Your task to perform on an android device: Go to settings Image 0: 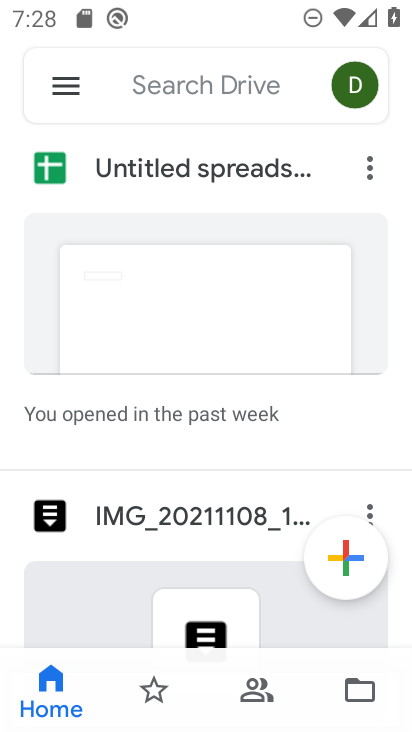
Step 0: press home button
Your task to perform on an android device: Go to settings Image 1: 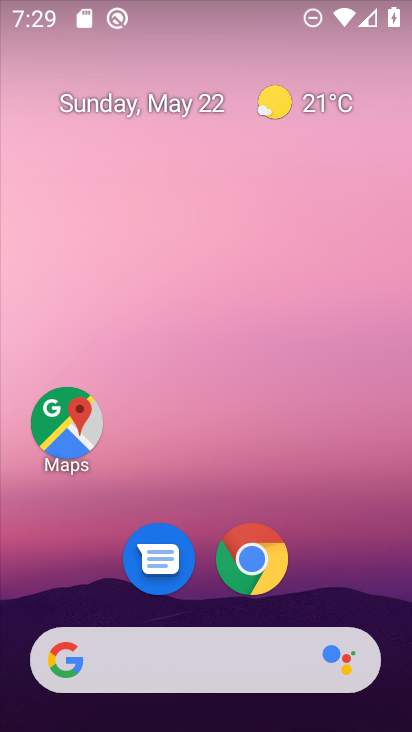
Step 1: drag from (291, 698) to (295, 276)
Your task to perform on an android device: Go to settings Image 2: 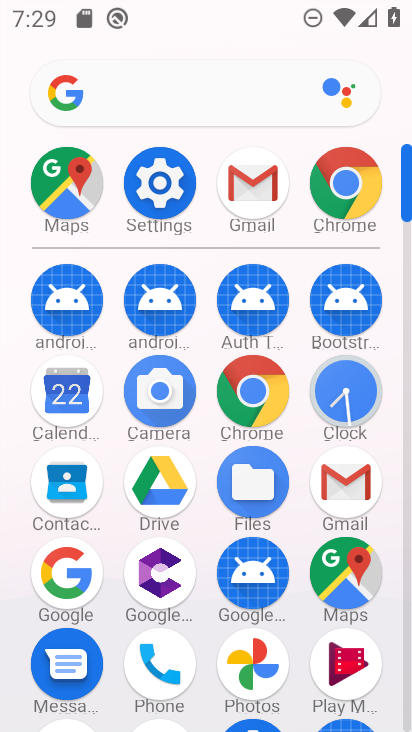
Step 2: click (180, 195)
Your task to perform on an android device: Go to settings Image 3: 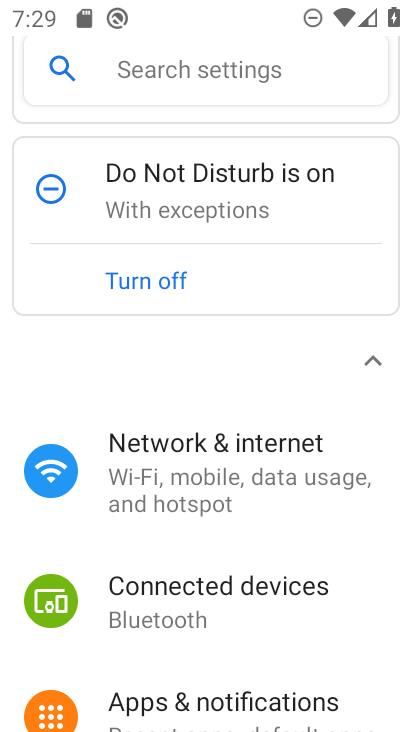
Step 3: task complete